Your task to perform on an android device: Open display settings Image 0: 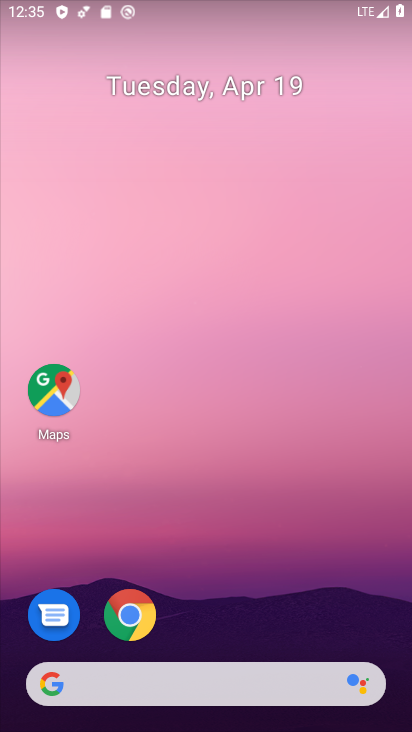
Step 0: drag from (277, 559) to (243, 0)
Your task to perform on an android device: Open display settings Image 1: 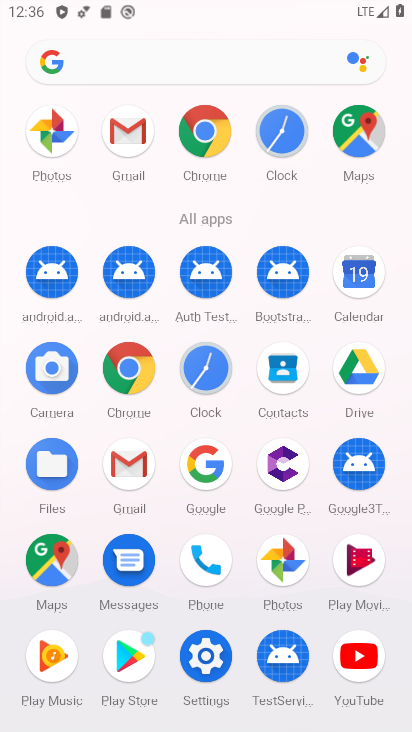
Step 1: click (208, 651)
Your task to perform on an android device: Open display settings Image 2: 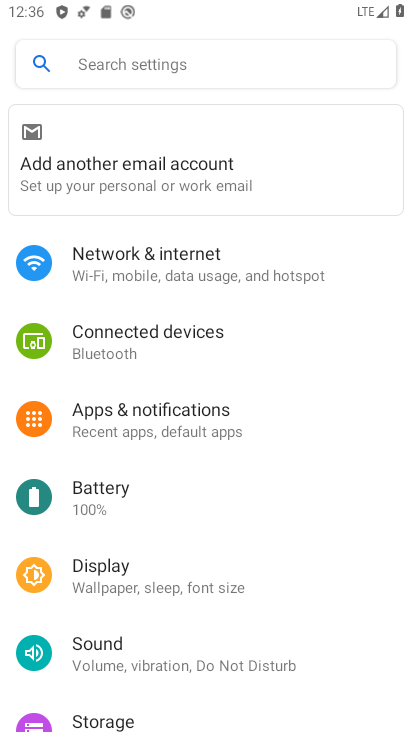
Step 2: click (120, 576)
Your task to perform on an android device: Open display settings Image 3: 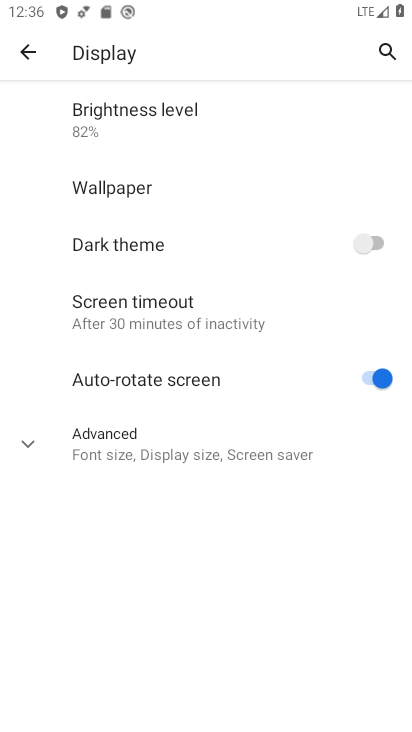
Step 3: task complete